Your task to perform on an android device: toggle notifications settings in the gmail app Image 0: 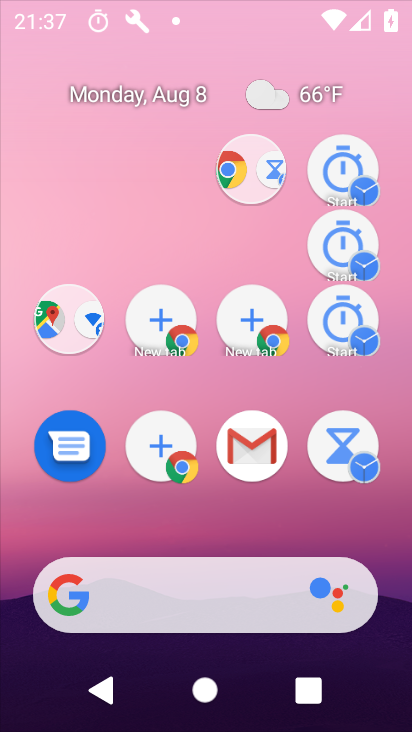
Step 0: drag from (223, 207) to (260, 319)
Your task to perform on an android device: toggle notifications settings in the gmail app Image 1: 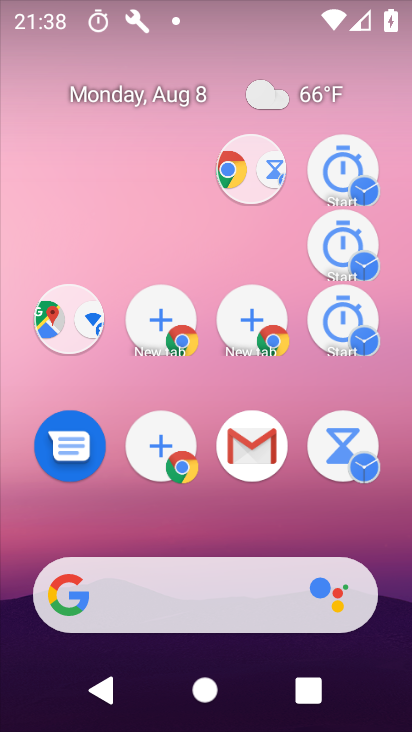
Step 1: drag from (291, 565) to (279, 244)
Your task to perform on an android device: toggle notifications settings in the gmail app Image 2: 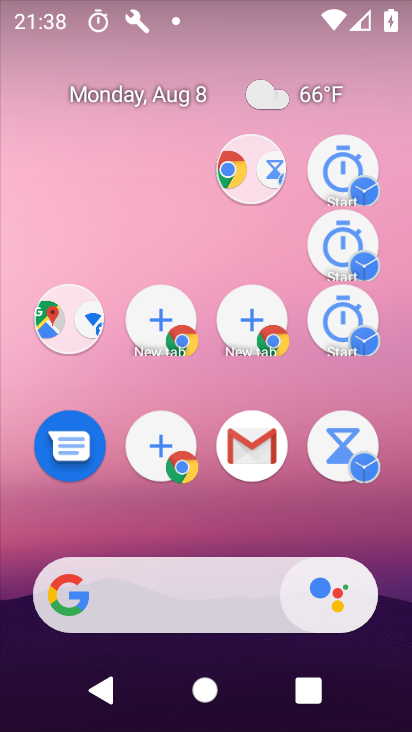
Step 2: drag from (304, 558) to (297, 245)
Your task to perform on an android device: toggle notifications settings in the gmail app Image 3: 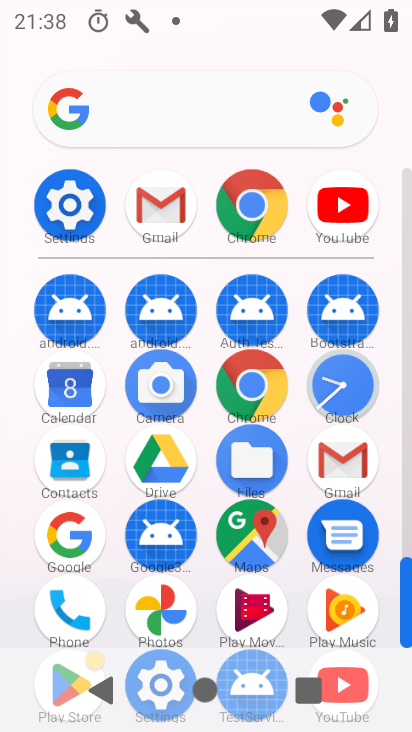
Step 3: click (349, 462)
Your task to perform on an android device: toggle notifications settings in the gmail app Image 4: 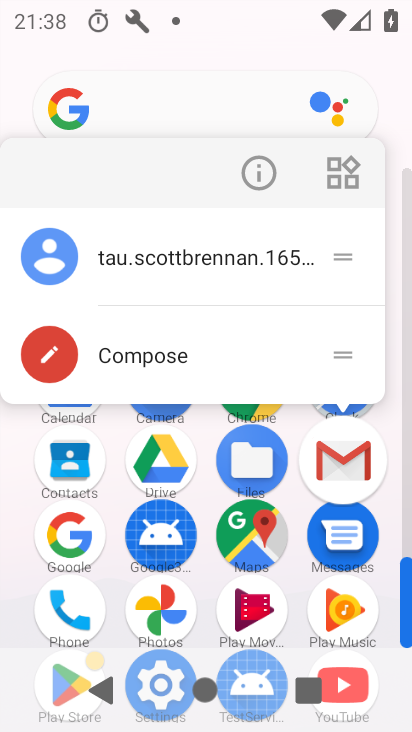
Step 4: click (350, 467)
Your task to perform on an android device: toggle notifications settings in the gmail app Image 5: 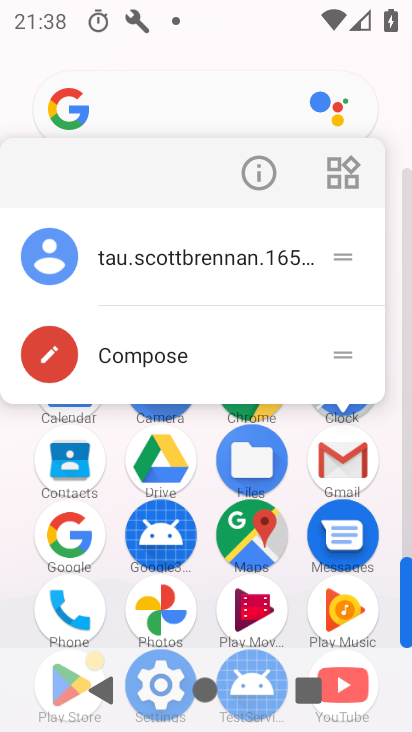
Step 5: click (350, 467)
Your task to perform on an android device: toggle notifications settings in the gmail app Image 6: 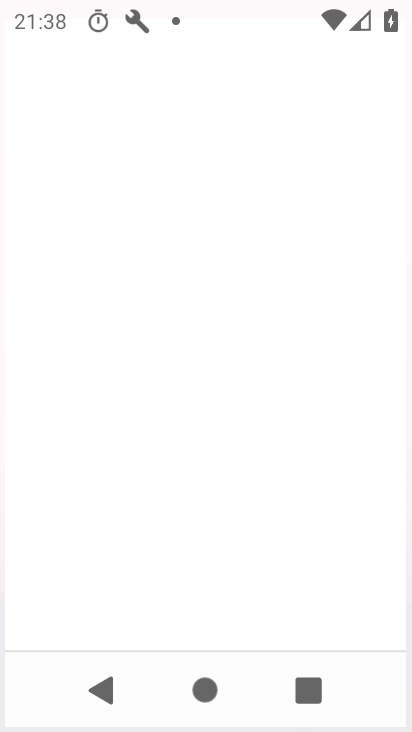
Step 6: click (342, 451)
Your task to perform on an android device: toggle notifications settings in the gmail app Image 7: 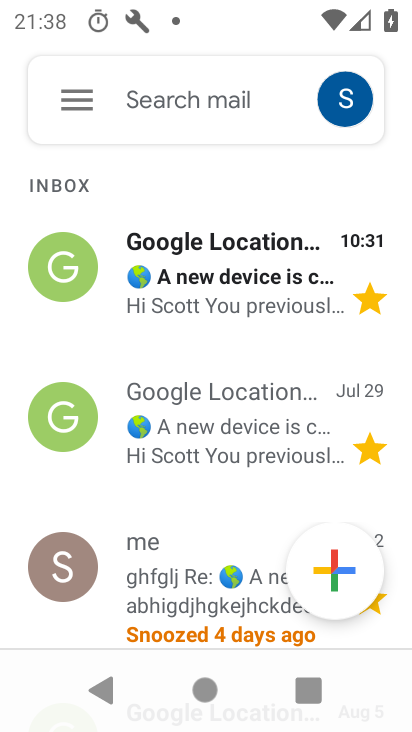
Step 7: click (75, 97)
Your task to perform on an android device: toggle notifications settings in the gmail app Image 8: 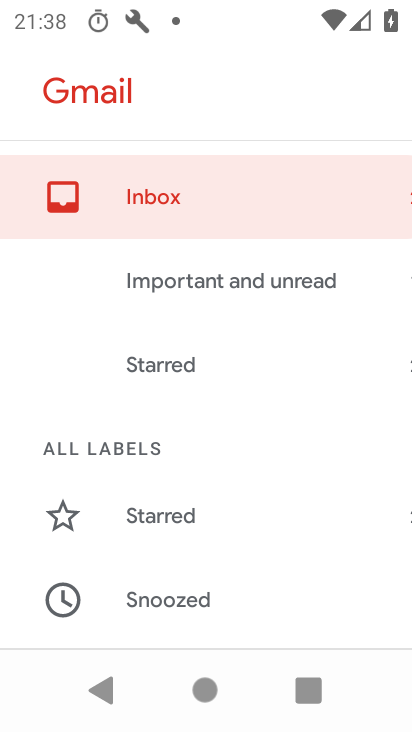
Step 8: drag from (185, 554) to (158, 203)
Your task to perform on an android device: toggle notifications settings in the gmail app Image 9: 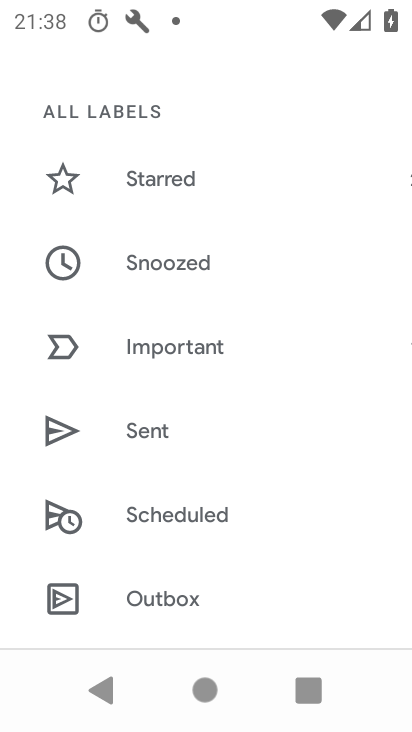
Step 9: drag from (183, 508) to (179, 147)
Your task to perform on an android device: toggle notifications settings in the gmail app Image 10: 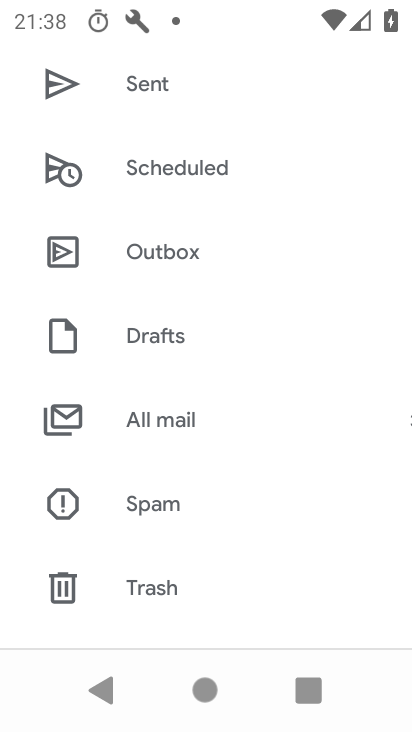
Step 10: drag from (177, 461) to (170, 162)
Your task to perform on an android device: toggle notifications settings in the gmail app Image 11: 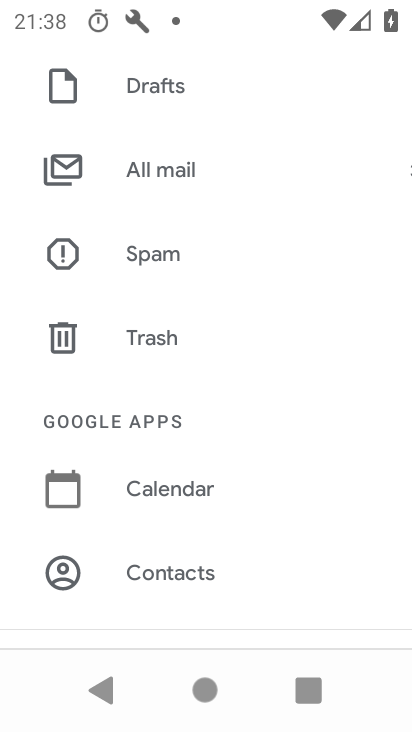
Step 11: drag from (220, 437) to (206, 123)
Your task to perform on an android device: toggle notifications settings in the gmail app Image 12: 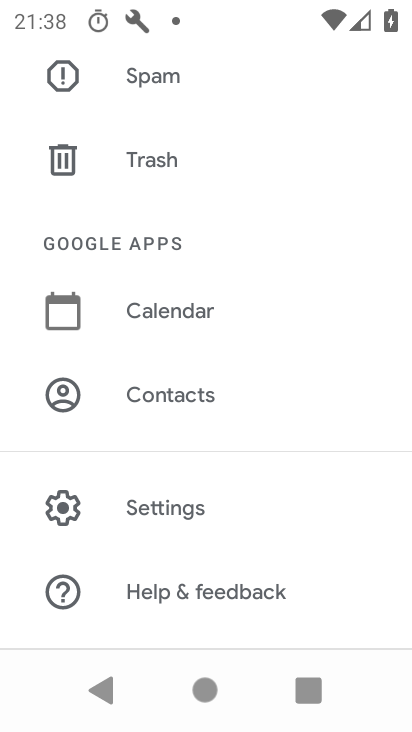
Step 12: click (166, 499)
Your task to perform on an android device: toggle notifications settings in the gmail app Image 13: 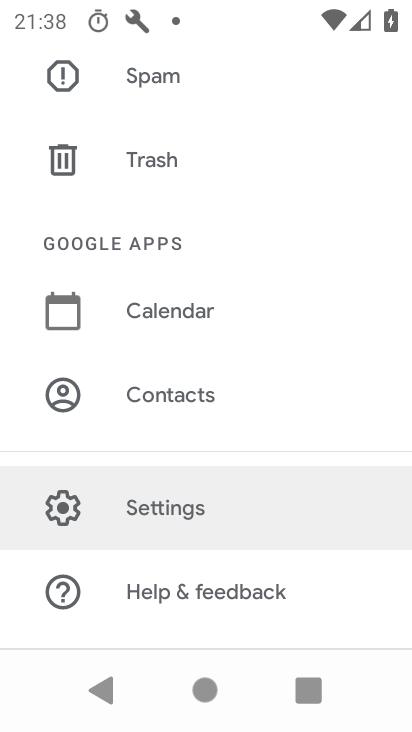
Step 13: click (171, 508)
Your task to perform on an android device: toggle notifications settings in the gmail app Image 14: 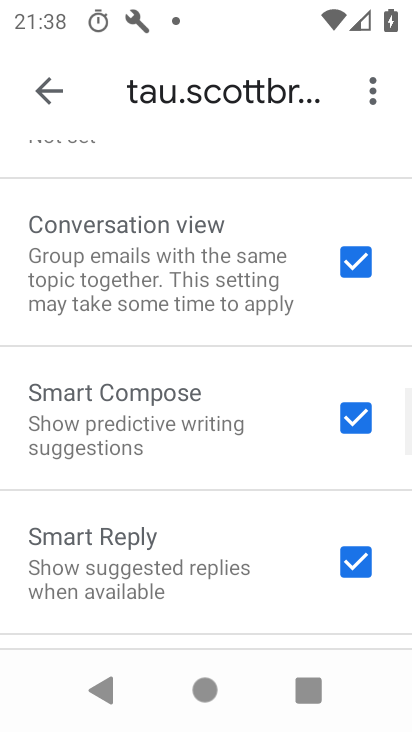
Step 14: task complete